Your task to perform on an android device: open app "Roku - Official Remote Control" Image 0: 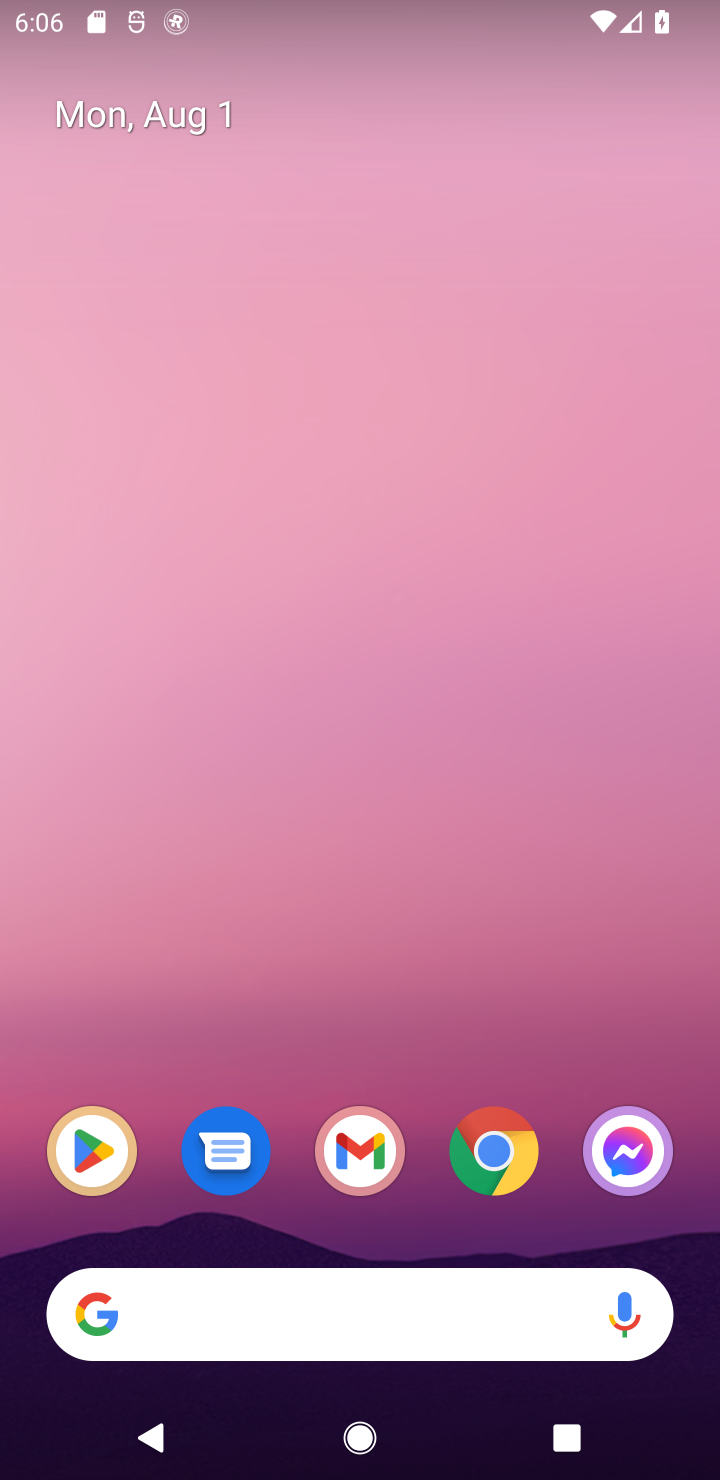
Step 0: click (95, 1162)
Your task to perform on an android device: open app "Roku - Official Remote Control" Image 1: 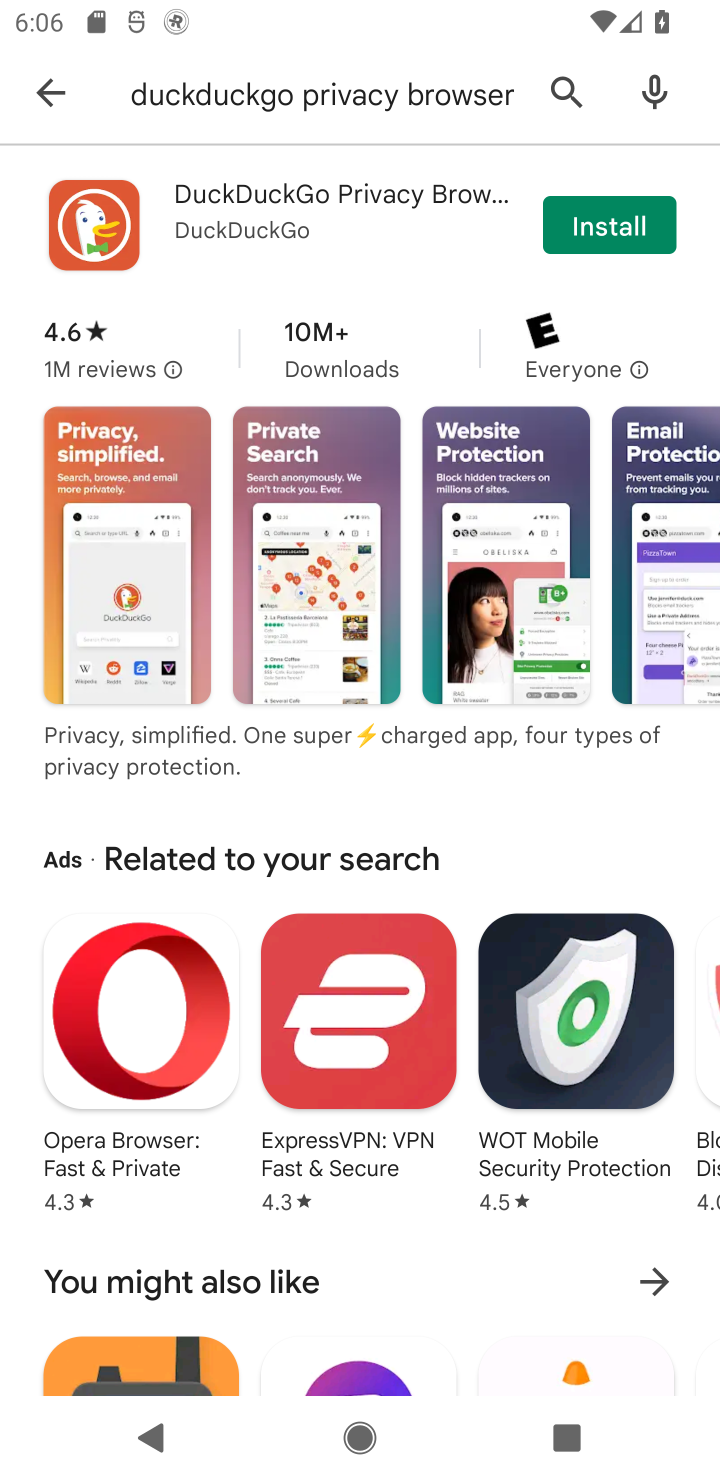
Step 1: click (557, 96)
Your task to perform on an android device: open app "Roku - Official Remote Control" Image 2: 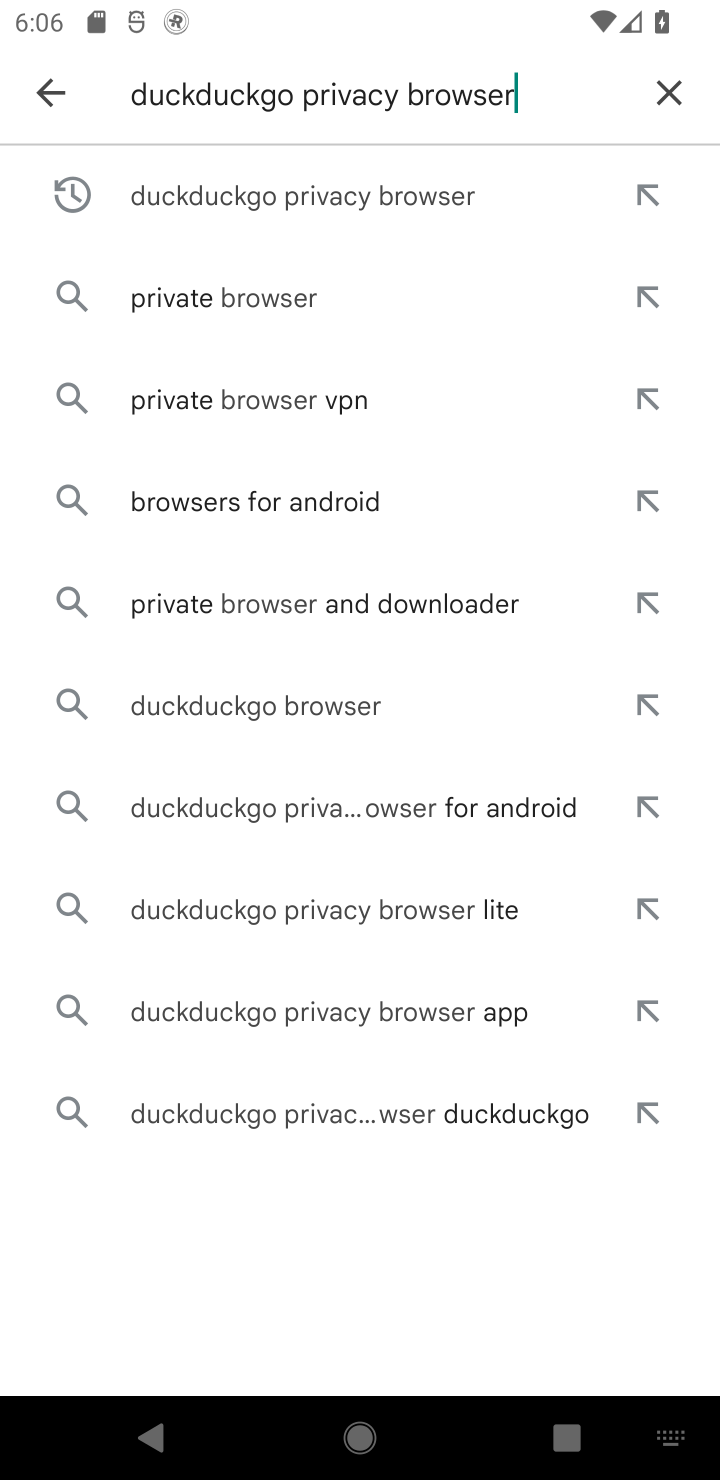
Step 2: click (650, 108)
Your task to perform on an android device: open app "Roku - Official Remote Control" Image 3: 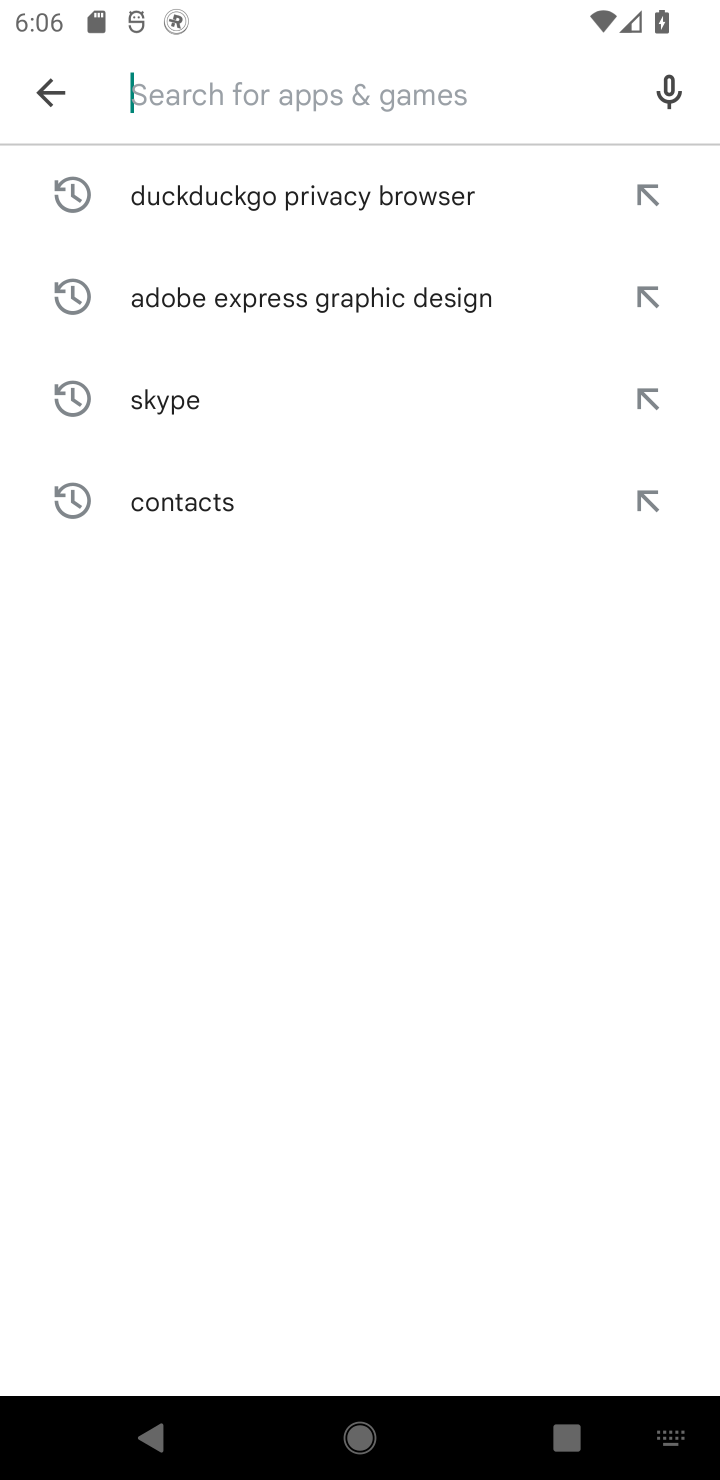
Step 3: type "Roku - Official Remote Control"
Your task to perform on an android device: open app "Roku - Official Remote Control" Image 4: 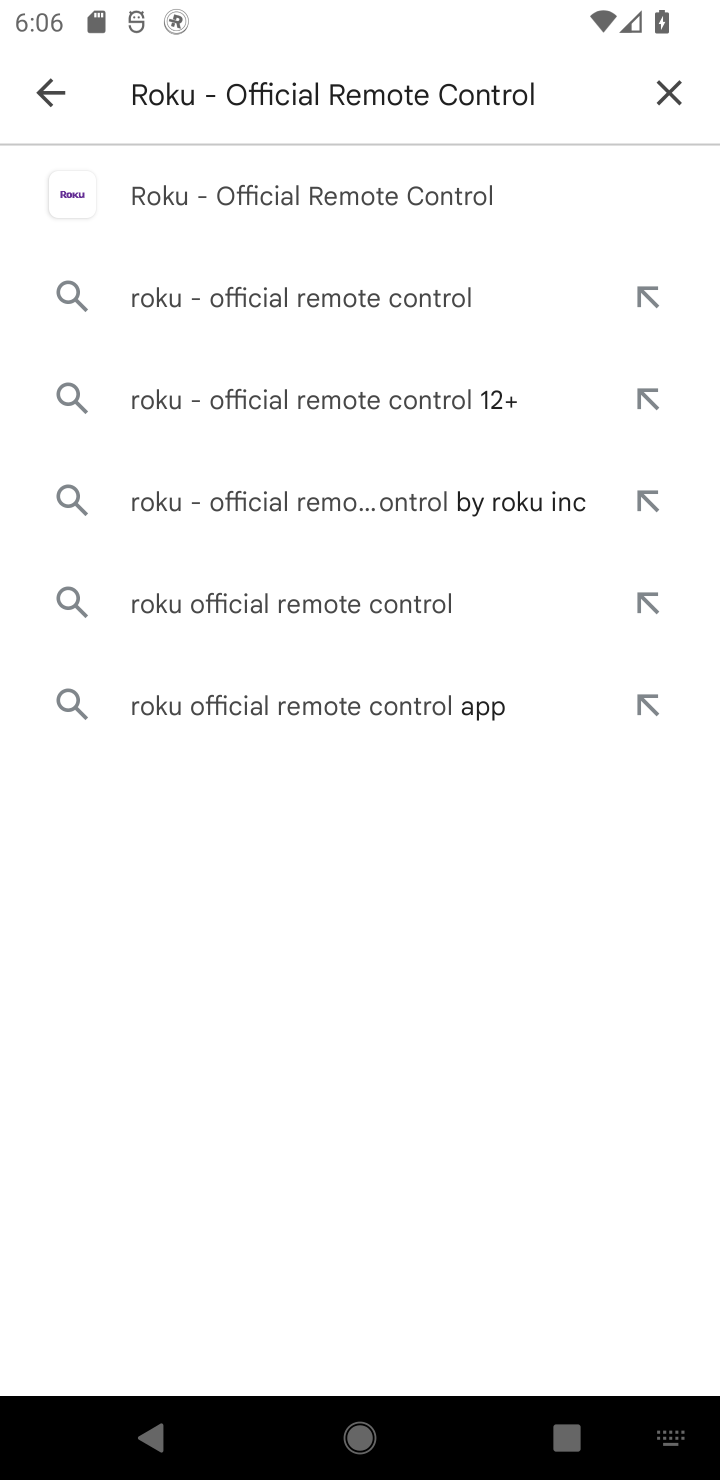
Step 4: click (208, 198)
Your task to perform on an android device: open app "Roku - Official Remote Control" Image 5: 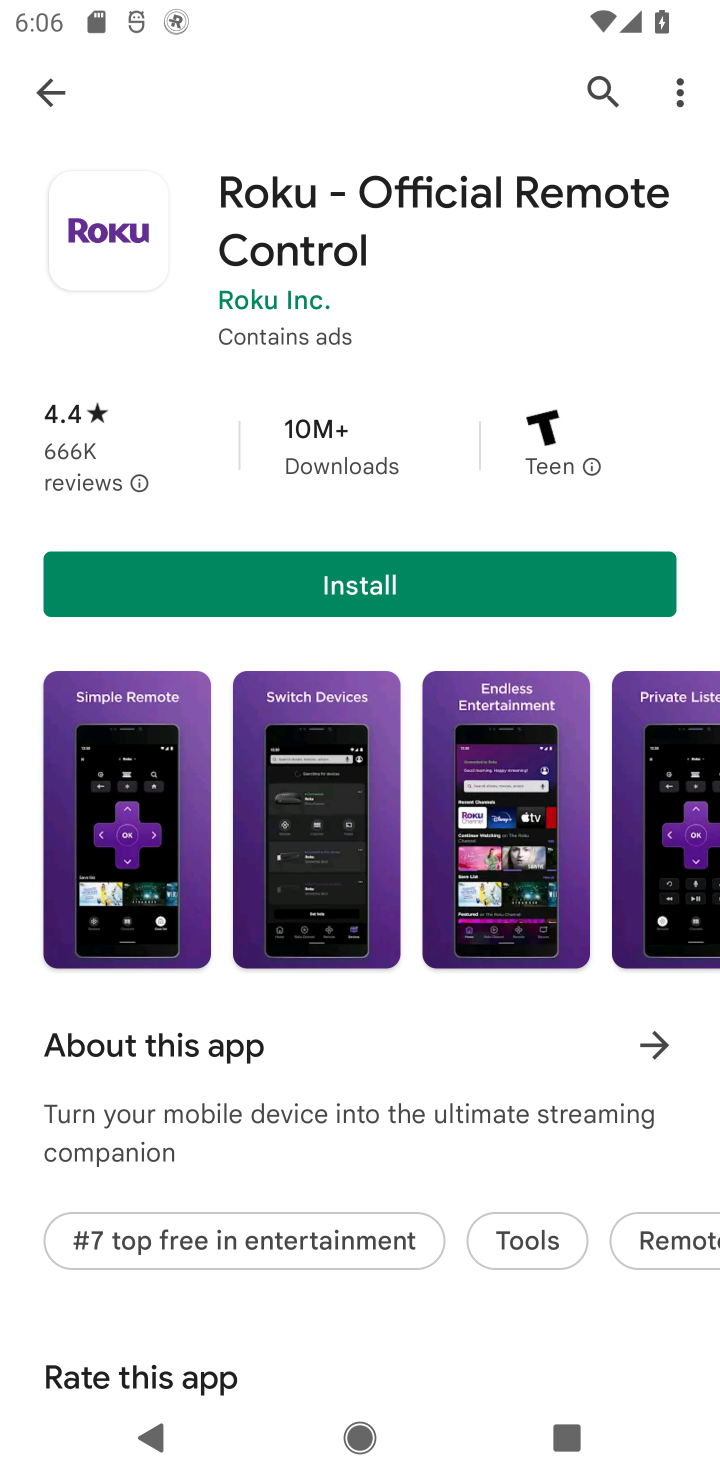
Step 5: task complete